Your task to perform on an android device: Go to eBay Image 0: 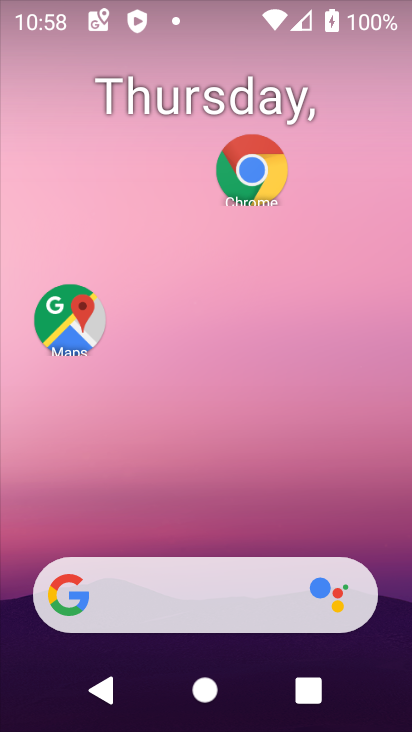
Step 0: click (266, 175)
Your task to perform on an android device: Go to eBay Image 1: 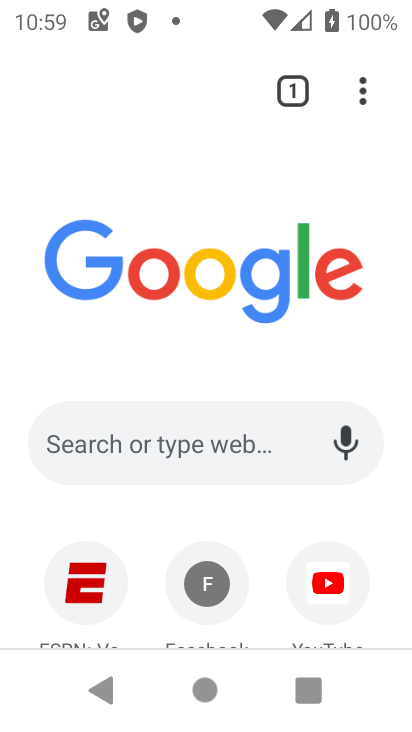
Step 1: drag from (219, 534) to (207, 210)
Your task to perform on an android device: Go to eBay Image 2: 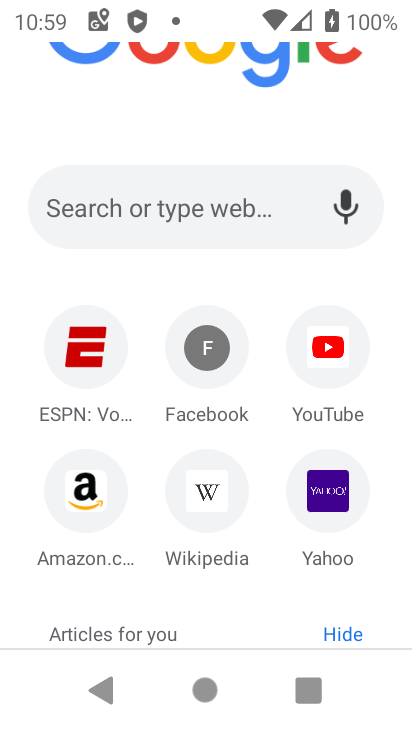
Step 2: drag from (272, 573) to (304, 239)
Your task to perform on an android device: Go to eBay Image 3: 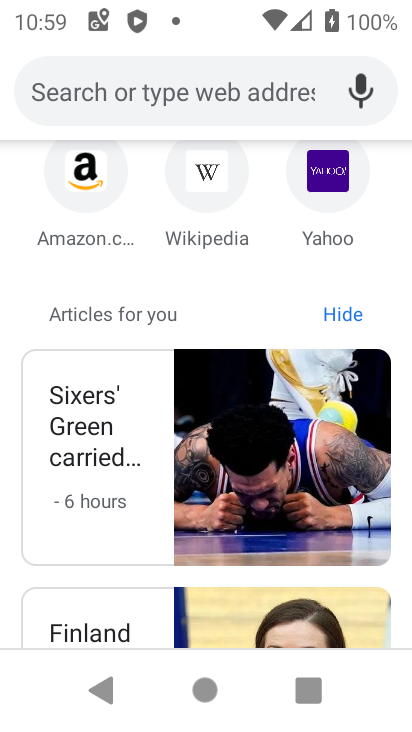
Step 3: drag from (276, 294) to (281, 389)
Your task to perform on an android device: Go to eBay Image 4: 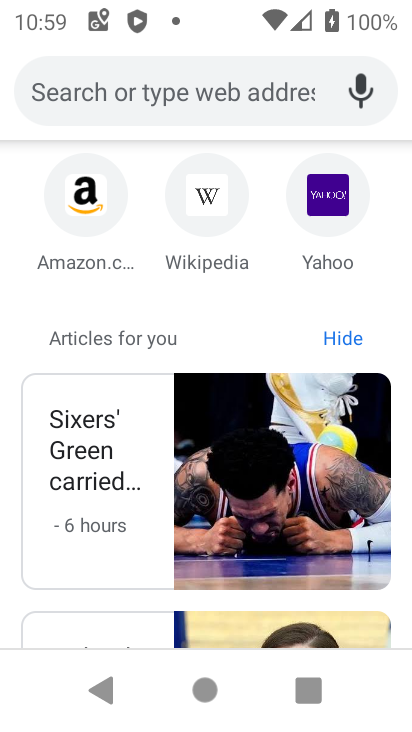
Step 4: drag from (251, 159) to (283, 473)
Your task to perform on an android device: Go to eBay Image 5: 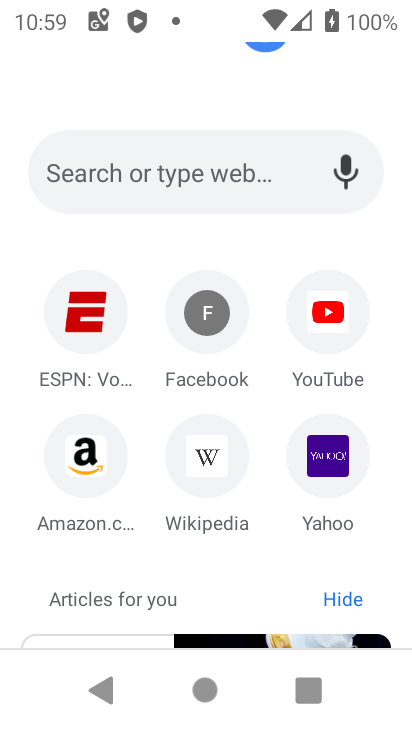
Step 5: click (142, 165)
Your task to perform on an android device: Go to eBay Image 6: 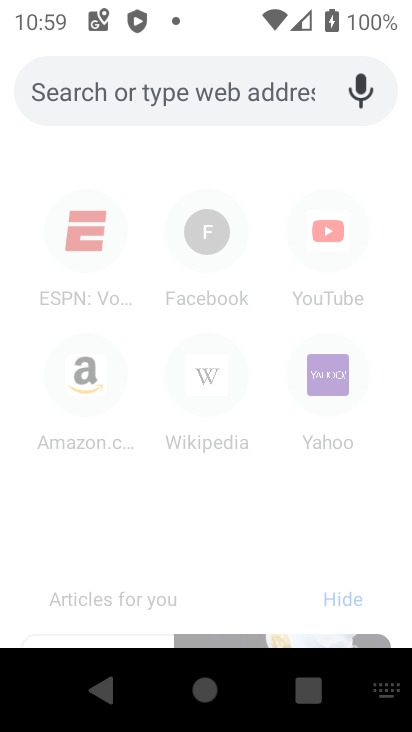
Step 6: type "ebay"
Your task to perform on an android device: Go to eBay Image 7: 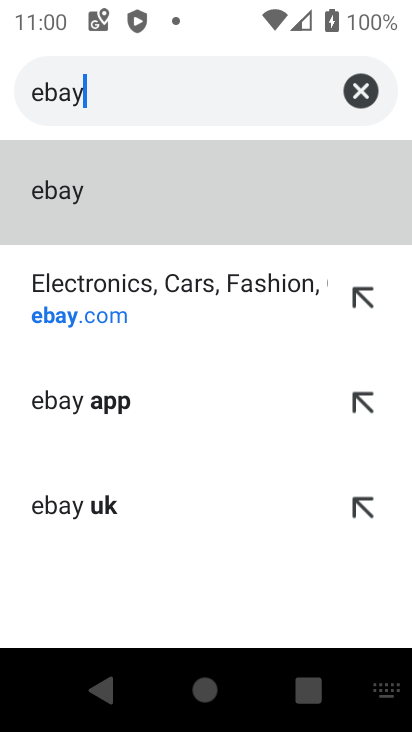
Step 7: click (46, 183)
Your task to perform on an android device: Go to eBay Image 8: 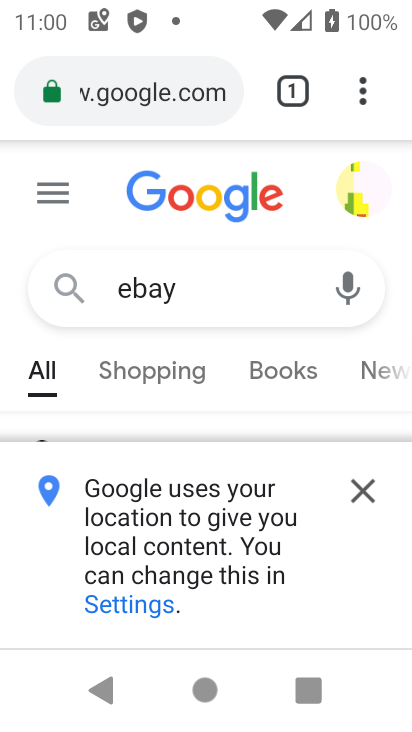
Step 8: task complete